Your task to perform on an android device: Go to eBay Image 0: 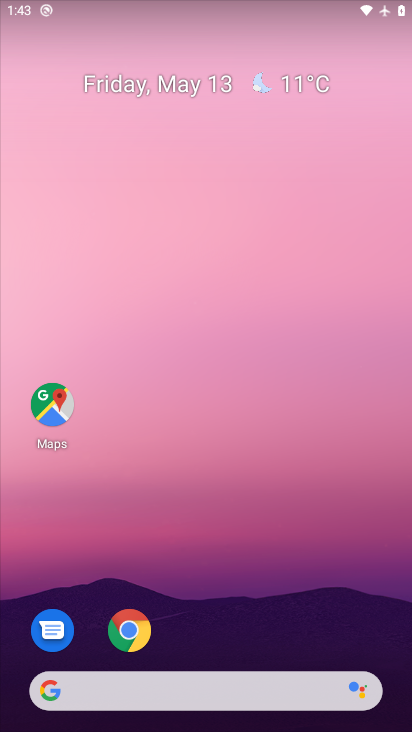
Step 0: drag from (289, 248) to (288, 183)
Your task to perform on an android device: Go to eBay Image 1: 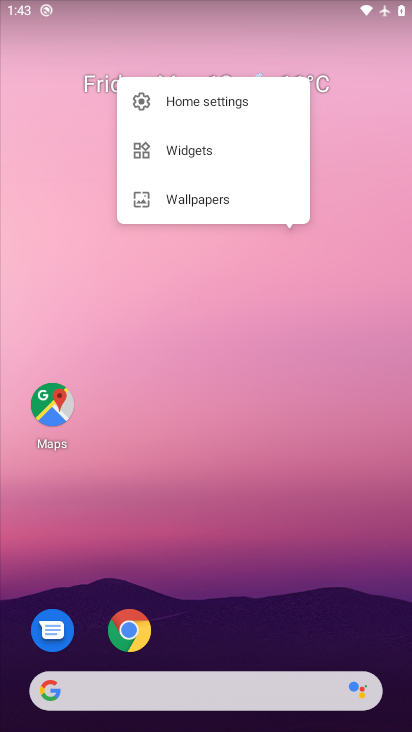
Step 1: drag from (245, 618) to (324, 216)
Your task to perform on an android device: Go to eBay Image 2: 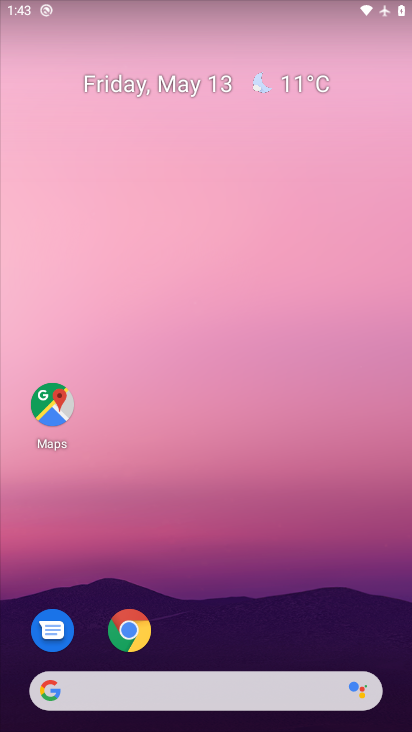
Step 2: click (256, 171)
Your task to perform on an android device: Go to eBay Image 3: 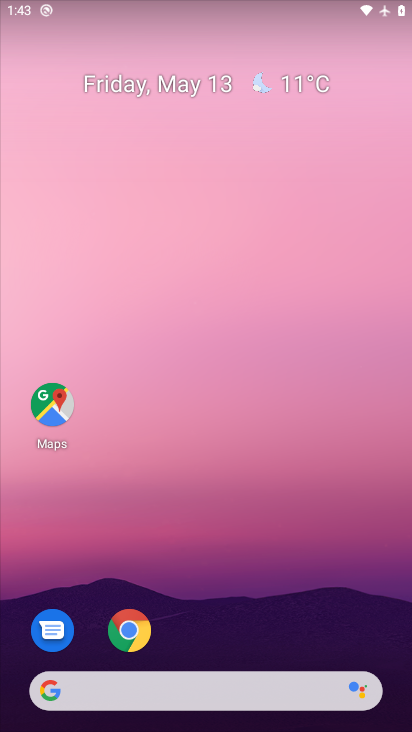
Step 3: drag from (209, 627) to (234, 221)
Your task to perform on an android device: Go to eBay Image 4: 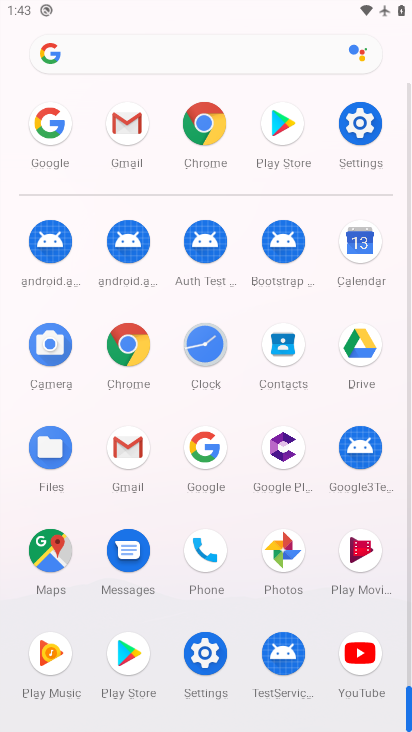
Step 4: click (140, 361)
Your task to perform on an android device: Go to eBay Image 5: 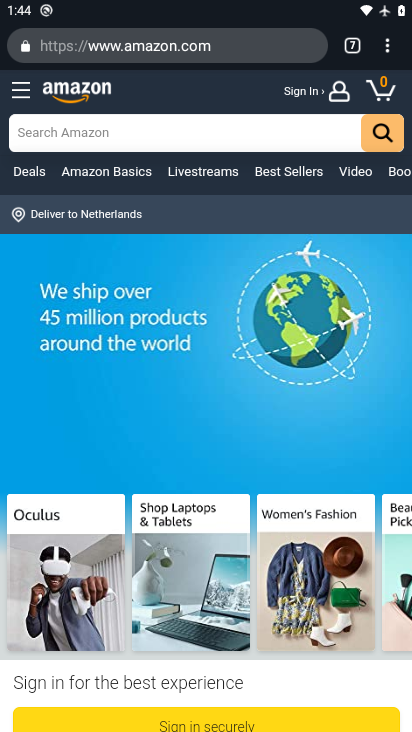
Step 5: click (355, 59)
Your task to perform on an android device: Go to eBay Image 6: 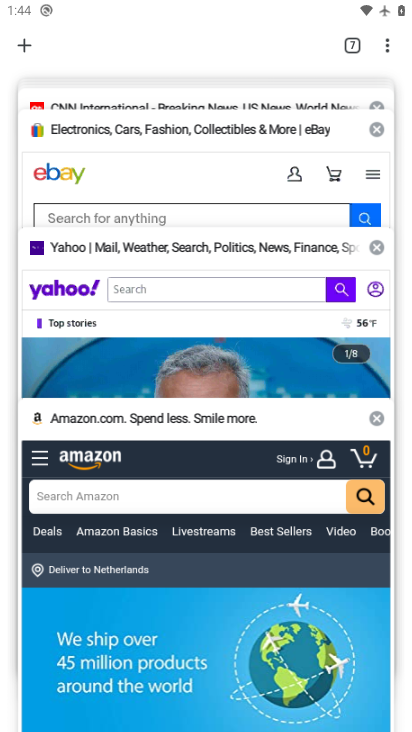
Step 6: click (97, 176)
Your task to perform on an android device: Go to eBay Image 7: 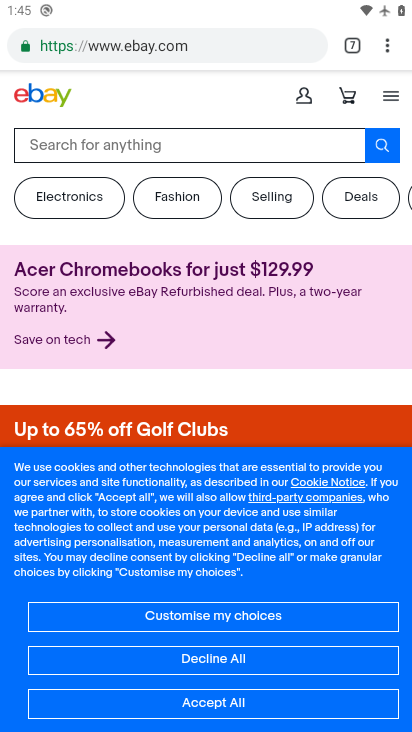
Step 7: task complete